Your task to perform on an android device: Search for Mexican restaurants on Maps Image 0: 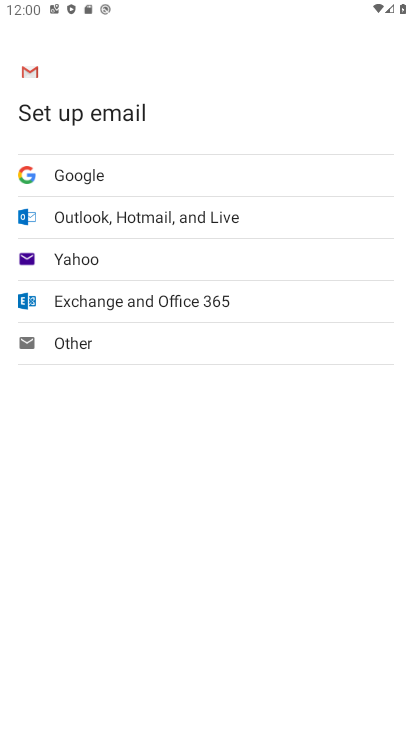
Step 0: press back button
Your task to perform on an android device: Search for Mexican restaurants on Maps Image 1: 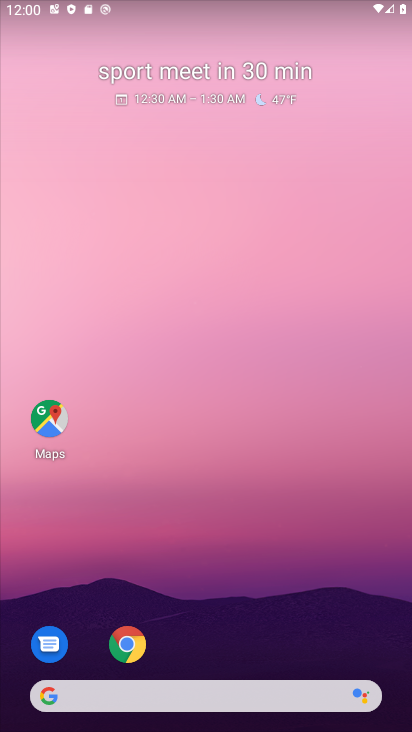
Step 1: click (46, 402)
Your task to perform on an android device: Search for Mexican restaurants on Maps Image 2: 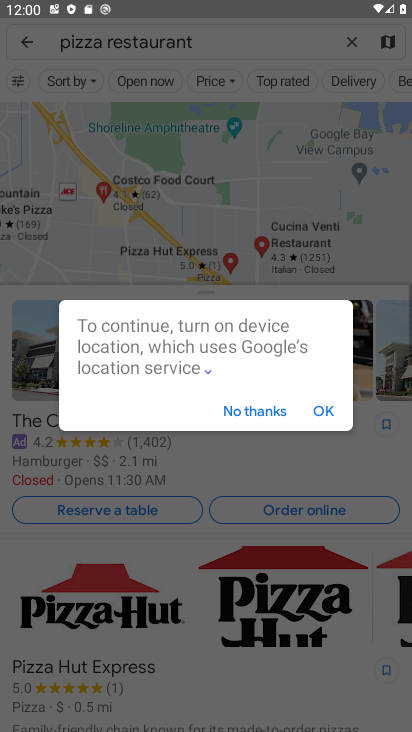
Step 2: click (253, 400)
Your task to perform on an android device: Search for Mexican restaurants on Maps Image 3: 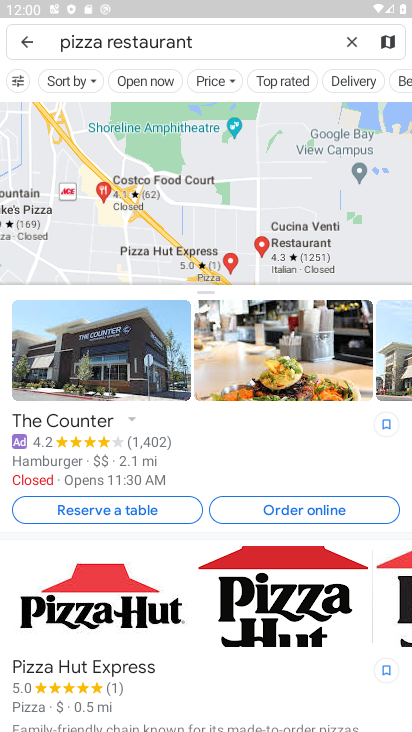
Step 3: click (346, 39)
Your task to perform on an android device: Search for Mexican restaurants on Maps Image 4: 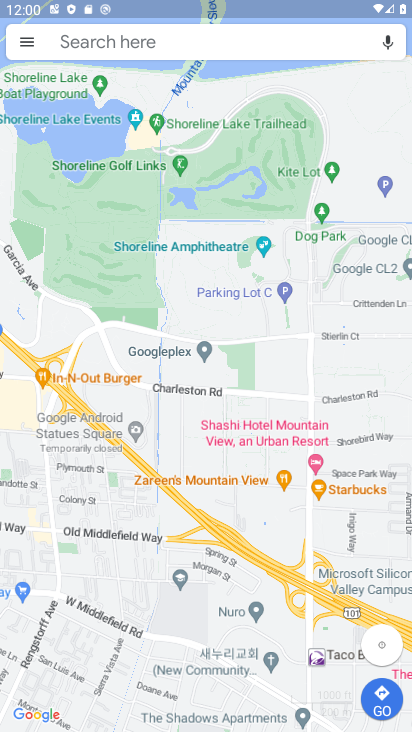
Step 4: click (199, 44)
Your task to perform on an android device: Search for Mexican restaurants on Maps Image 5: 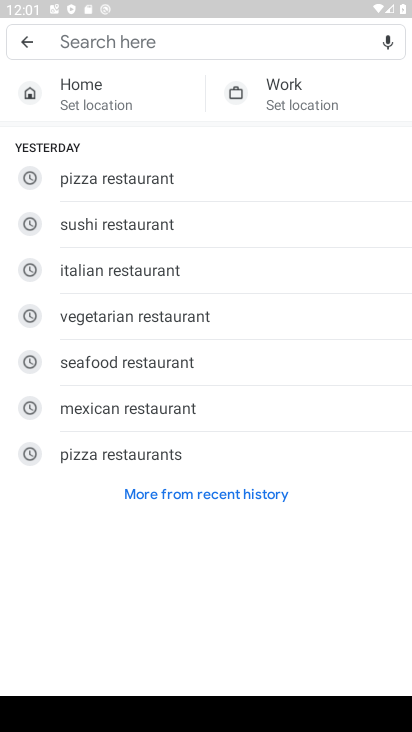
Step 5: click (110, 407)
Your task to perform on an android device: Search for Mexican restaurants on Maps Image 6: 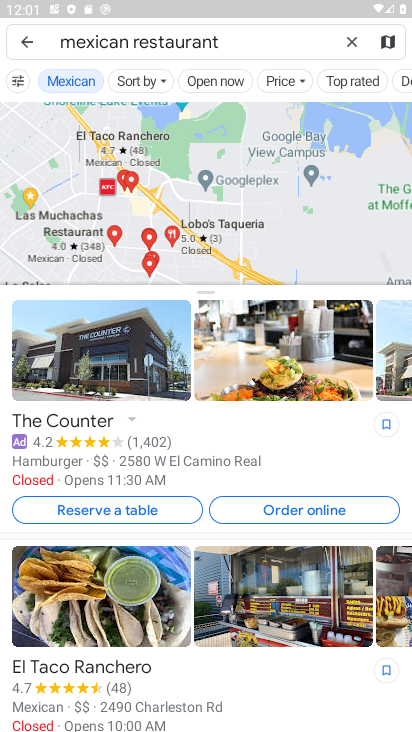
Step 6: task complete